Your task to perform on an android device: open a new tab in the chrome app Image 0: 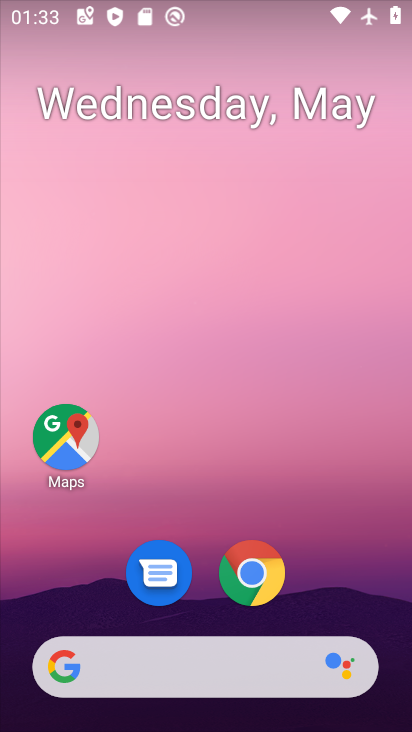
Step 0: click (245, 587)
Your task to perform on an android device: open a new tab in the chrome app Image 1: 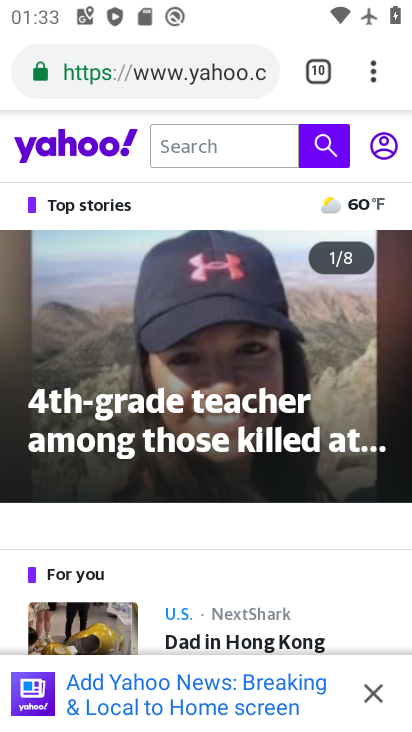
Step 1: click (376, 61)
Your task to perform on an android device: open a new tab in the chrome app Image 2: 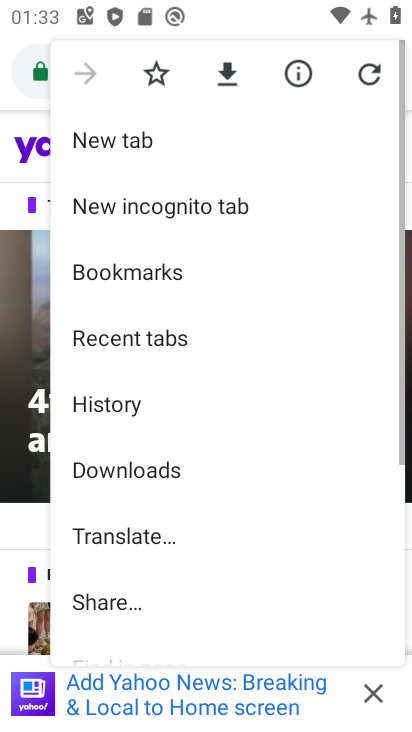
Step 2: click (133, 131)
Your task to perform on an android device: open a new tab in the chrome app Image 3: 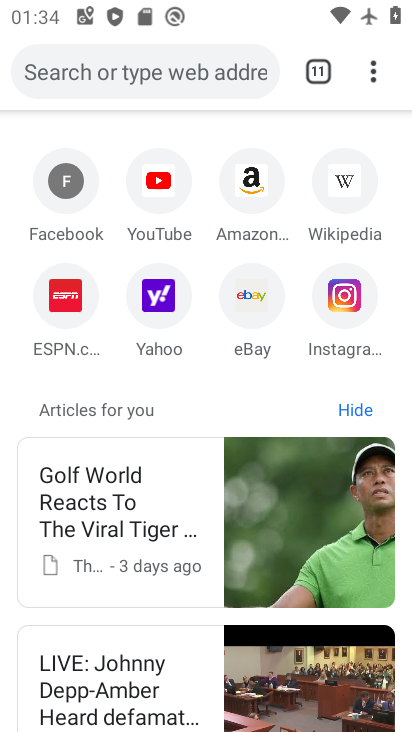
Step 3: task complete